Your task to perform on an android device: allow cookies in the chrome app Image 0: 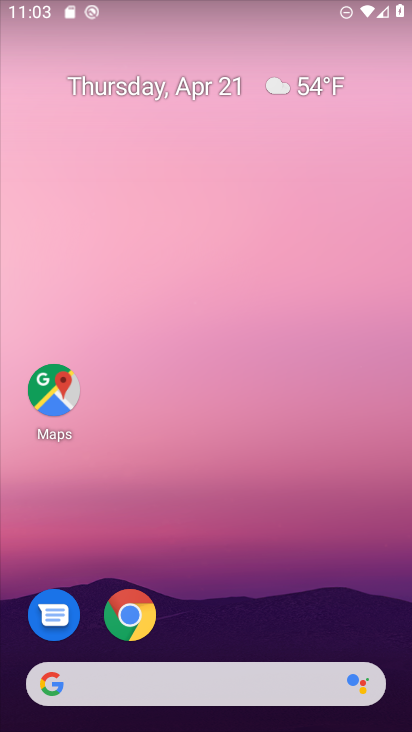
Step 0: click (126, 611)
Your task to perform on an android device: allow cookies in the chrome app Image 1: 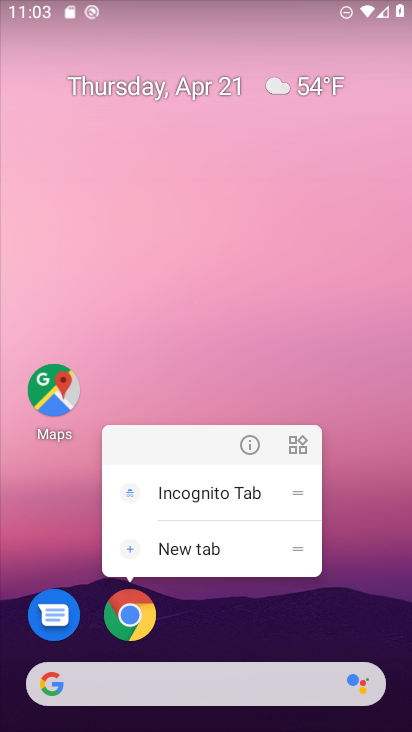
Step 1: click (126, 611)
Your task to perform on an android device: allow cookies in the chrome app Image 2: 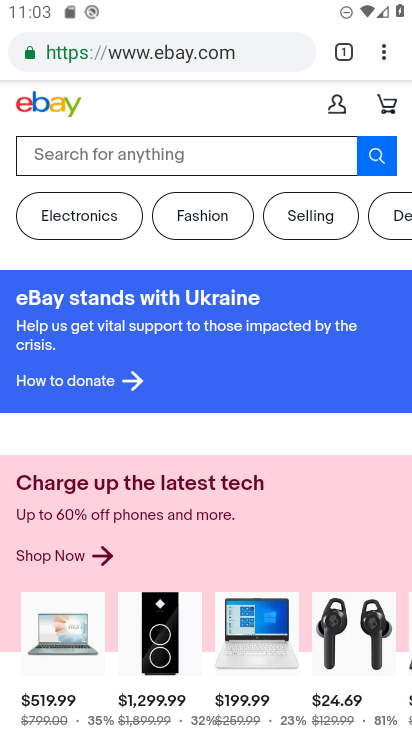
Step 2: click (385, 53)
Your task to perform on an android device: allow cookies in the chrome app Image 3: 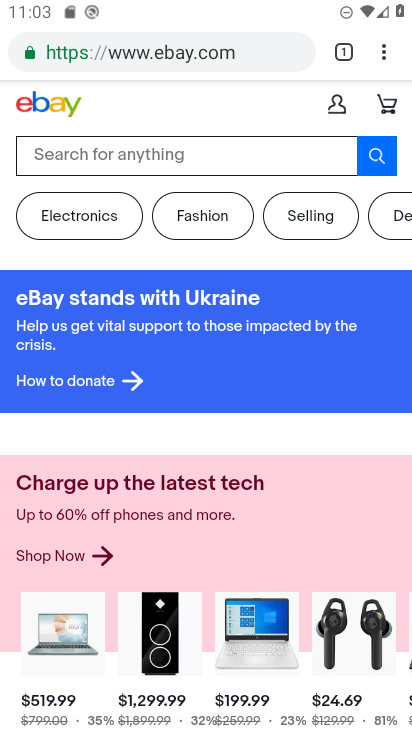
Step 3: click (385, 53)
Your task to perform on an android device: allow cookies in the chrome app Image 4: 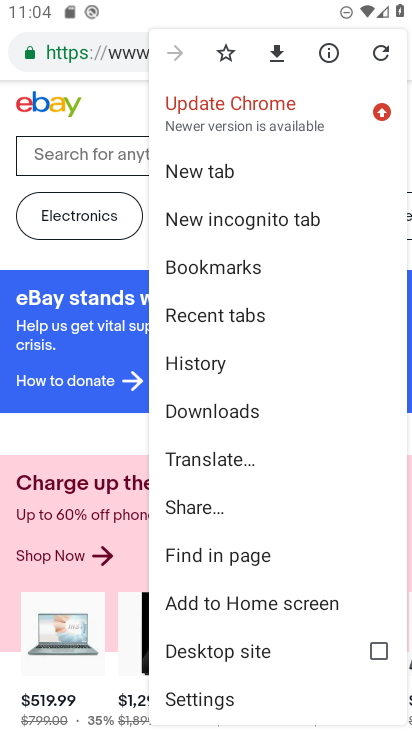
Step 4: click (210, 697)
Your task to perform on an android device: allow cookies in the chrome app Image 5: 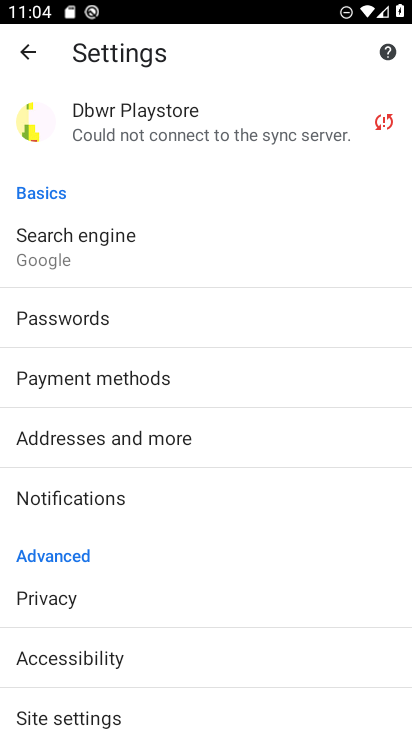
Step 5: click (190, 727)
Your task to perform on an android device: allow cookies in the chrome app Image 6: 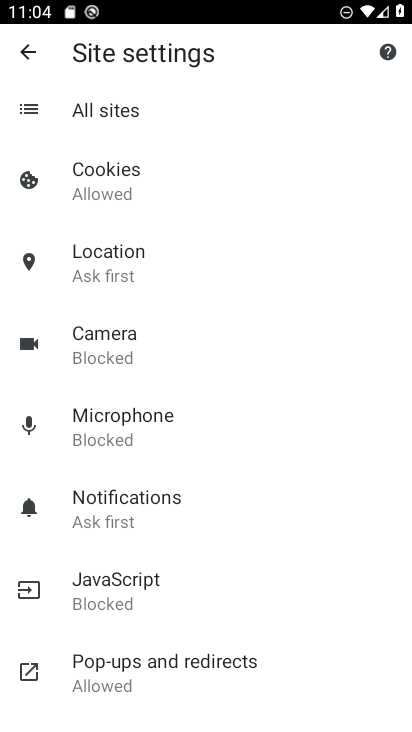
Step 6: click (186, 185)
Your task to perform on an android device: allow cookies in the chrome app Image 7: 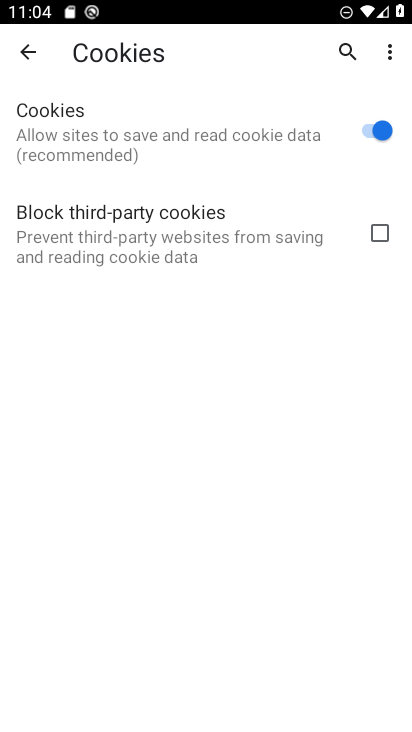
Step 7: task complete